Your task to perform on an android device: Search for sushi restaurants on Maps Image 0: 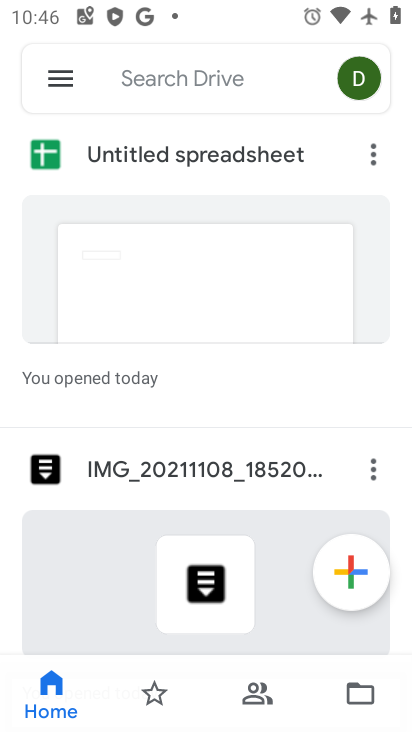
Step 0: press home button
Your task to perform on an android device: Search for sushi restaurants on Maps Image 1: 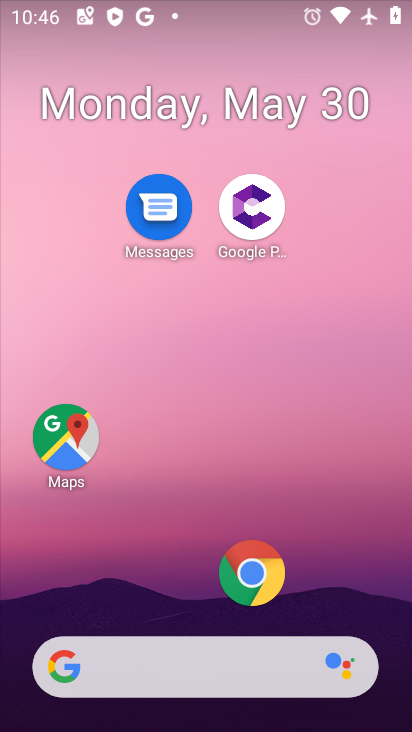
Step 1: drag from (176, 637) to (267, 200)
Your task to perform on an android device: Search for sushi restaurants on Maps Image 2: 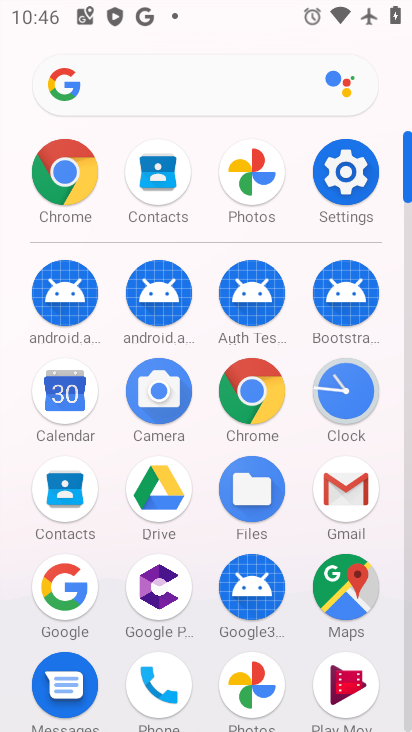
Step 2: click (354, 588)
Your task to perform on an android device: Search for sushi restaurants on Maps Image 3: 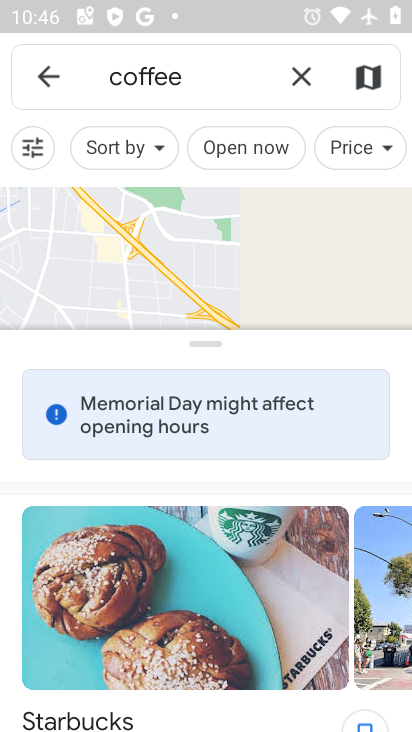
Step 3: click (303, 74)
Your task to perform on an android device: Search for sushi restaurants on Maps Image 4: 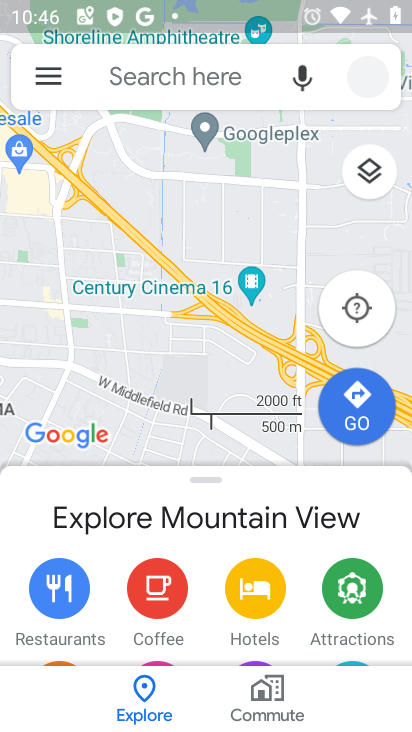
Step 4: click (163, 88)
Your task to perform on an android device: Search for sushi restaurants on Maps Image 5: 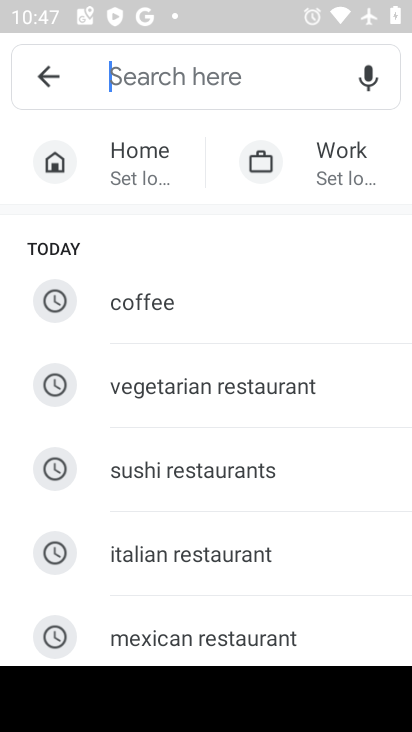
Step 5: click (204, 483)
Your task to perform on an android device: Search for sushi restaurants on Maps Image 6: 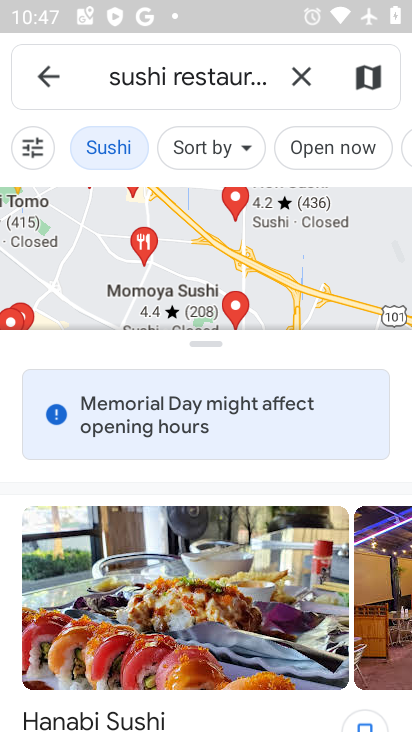
Step 6: task complete